Your task to perform on an android device: Do I have any events this weekend? Image 0: 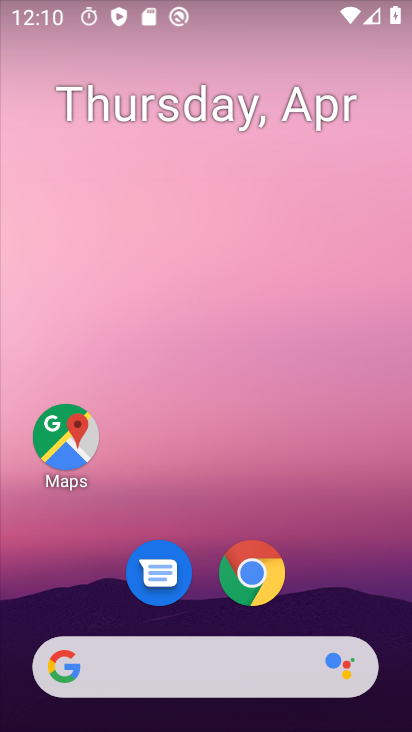
Step 0: drag from (382, 441) to (381, 191)
Your task to perform on an android device: Do I have any events this weekend? Image 1: 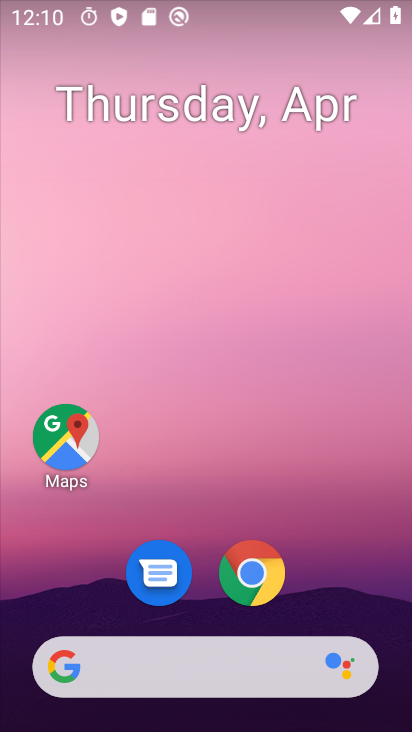
Step 1: drag from (376, 603) to (348, 136)
Your task to perform on an android device: Do I have any events this weekend? Image 2: 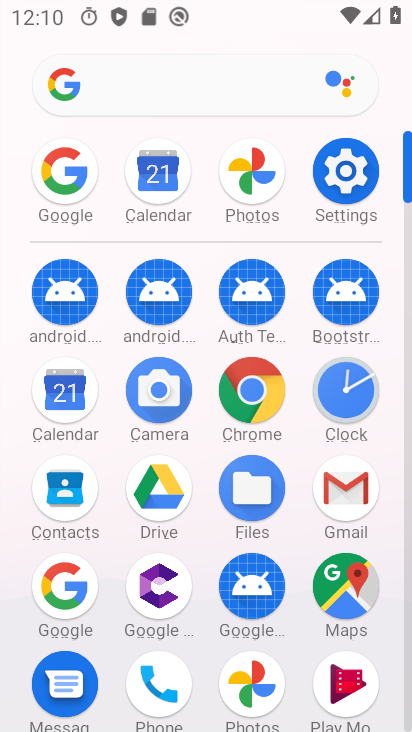
Step 2: click (77, 399)
Your task to perform on an android device: Do I have any events this weekend? Image 3: 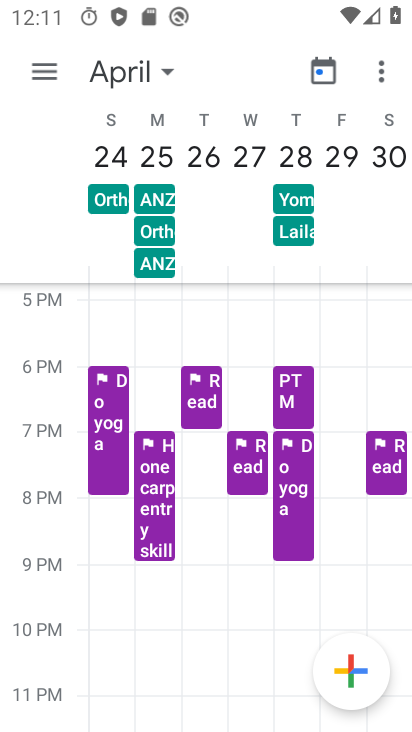
Step 3: click (35, 70)
Your task to perform on an android device: Do I have any events this weekend? Image 4: 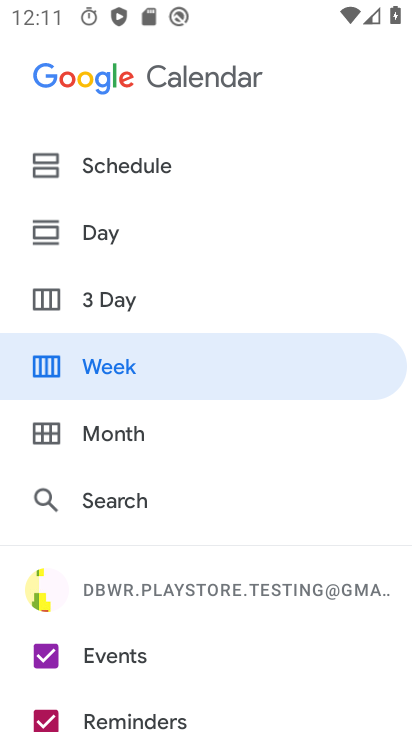
Step 4: click (110, 375)
Your task to perform on an android device: Do I have any events this weekend? Image 5: 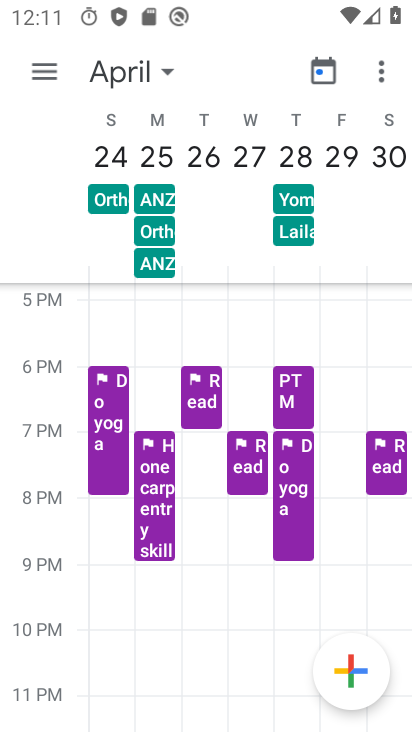
Step 5: task complete